Your task to perform on an android device: Open Wikipedia Image 0: 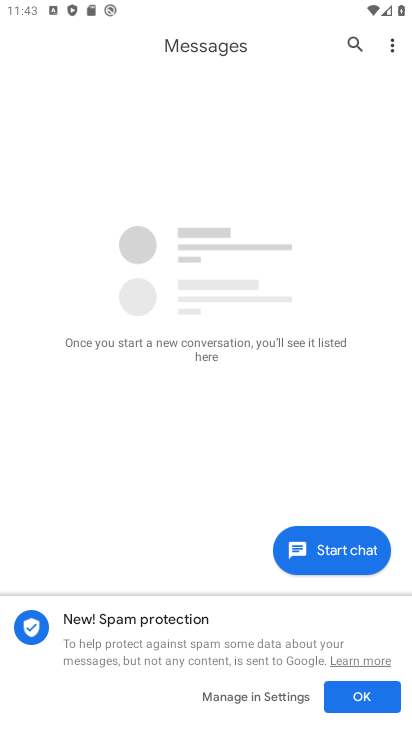
Step 0: press home button
Your task to perform on an android device: Open Wikipedia Image 1: 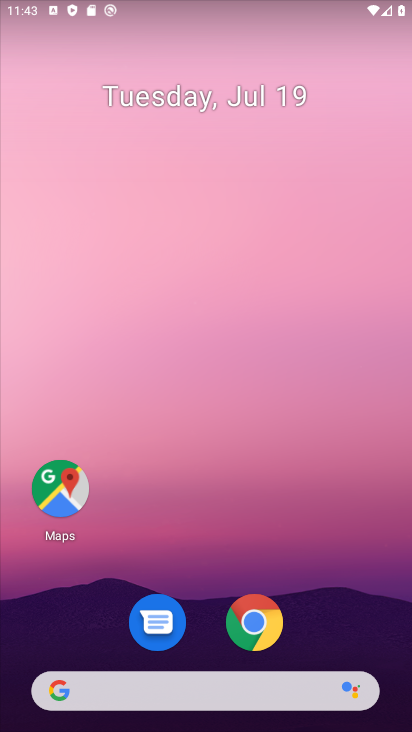
Step 1: click (250, 607)
Your task to perform on an android device: Open Wikipedia Image 2: 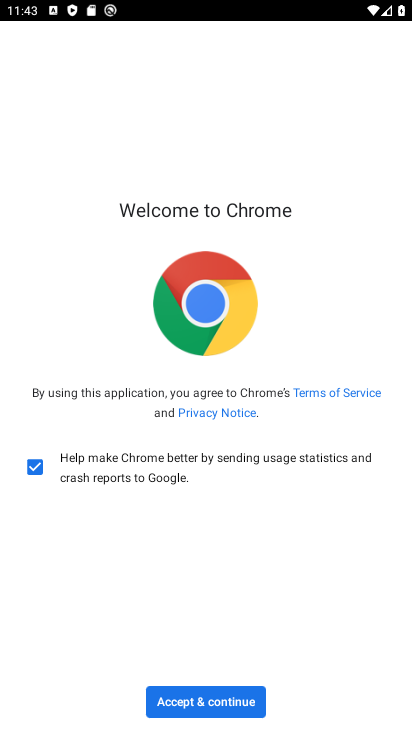
Step 2: click (227, 703)
Your task to perform on an android device: Open Wikipedia Image 3: 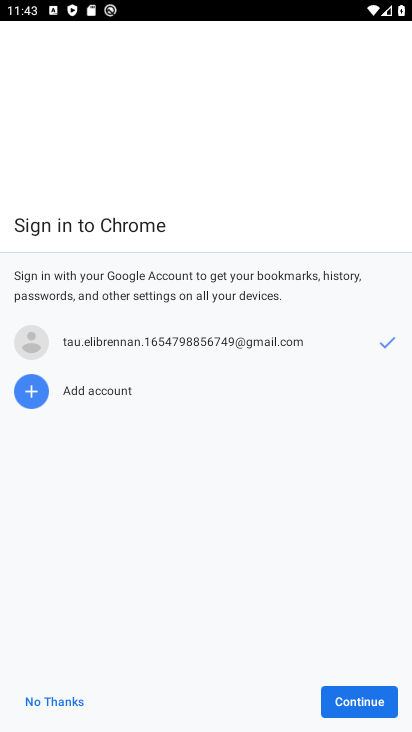
Step 3: click (362, 705)
Your task to perform on an android device: Open Wikipedia Image 4: 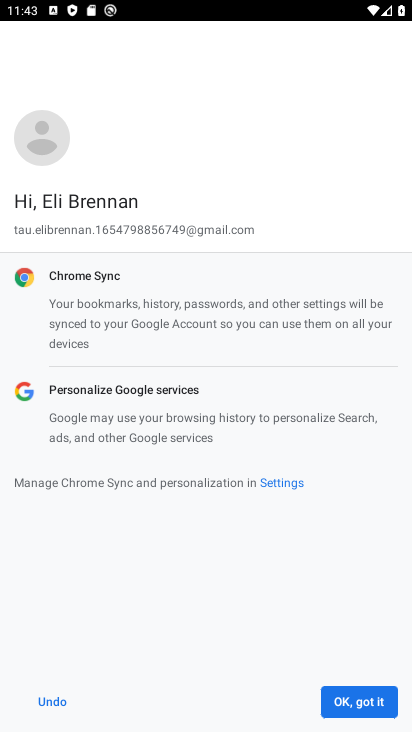
Step 4: click (365, 698)
Your task to perform on an android device: Open Wikipedia Image 5: 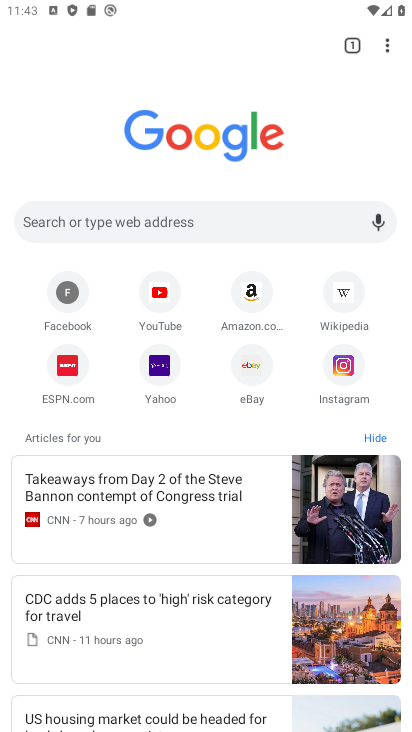
Step 5: click (337, 281)
Your task to perform on an android device: Open Wikipedia Image 6: 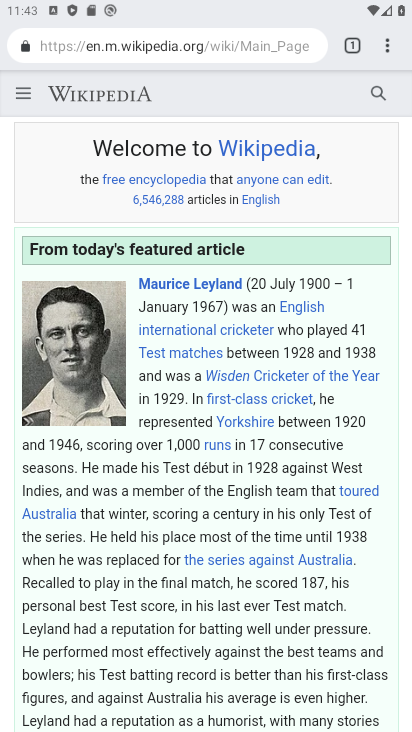
Step 6: task complete